Your task to perform on an android device: change the clock display to digital Image 0: 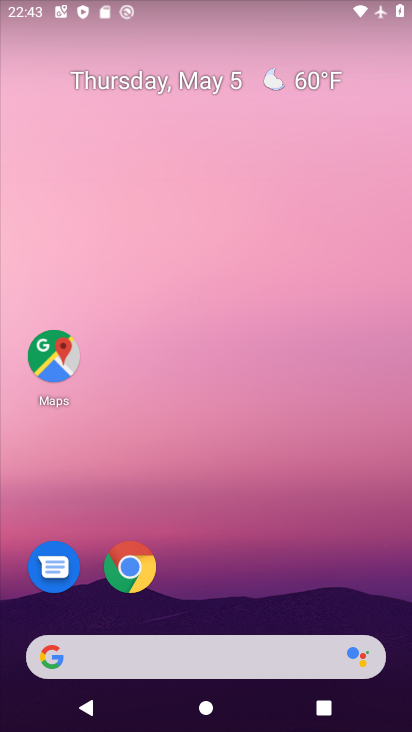
Step 0: drag from (224, 597) to (207, 206)
Your task to perform on an android device: change the clock display to digital Image 1: 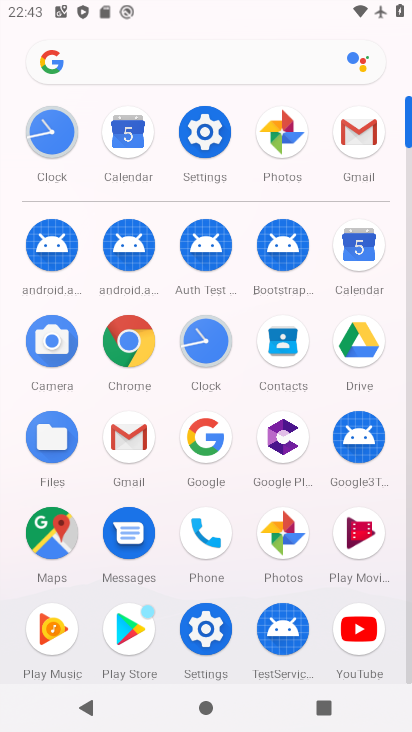
Step 1: click (196, 328)
Your task to perform on an android device: change the clock display to digital Image 2: 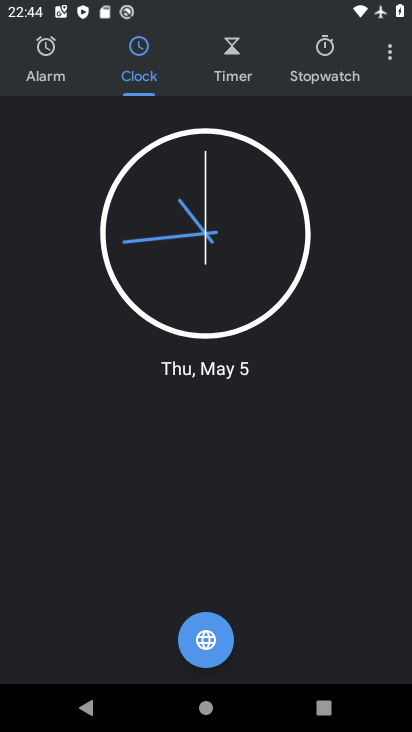
Step 2: click (384, 47)
Your task to perform on an android device: change the clock display to digital Image 3: 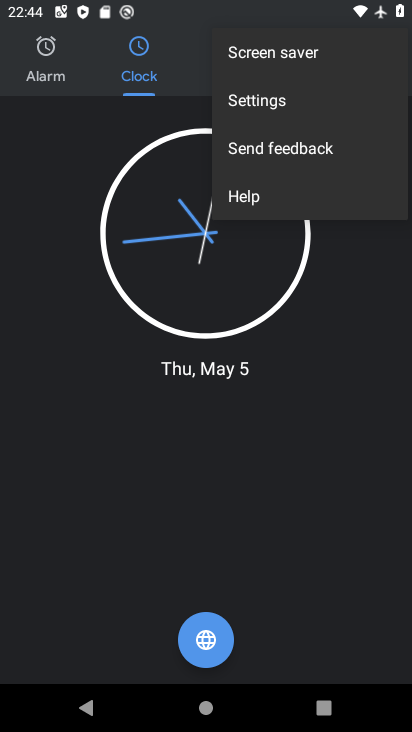
Step 3: click (308, 98)
Your task to perform on an android device: change the clock display to digital Image 4: 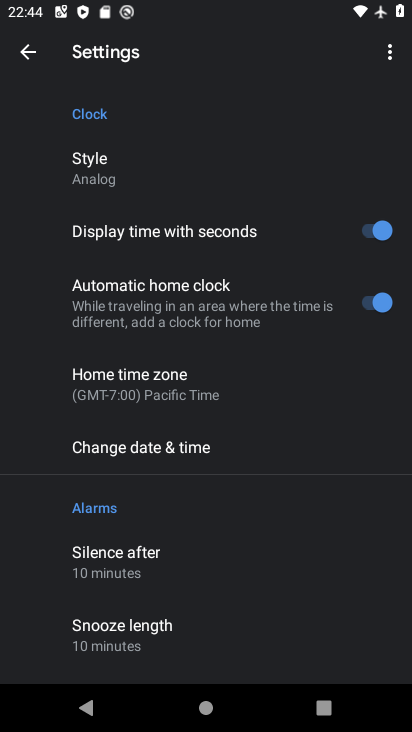
Step 4: click (83, 170)
Your task to perform on an android device: change the clock display to digital Image 5: 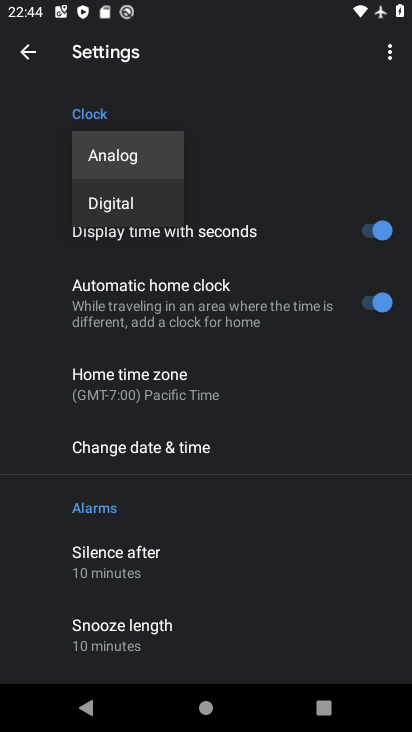
Step 5: click (124, 205)
Your task to perform on an android device: change the clock display to digital Image 6: 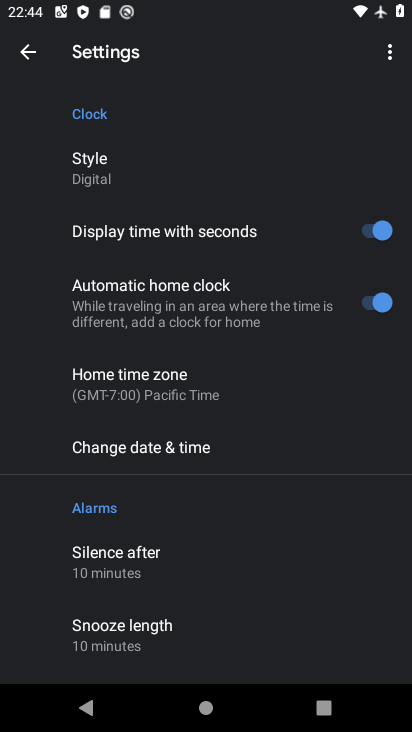
Step 6: task complete